Your task to perform on an android device: visit the assistant section in the google photos Image 0: 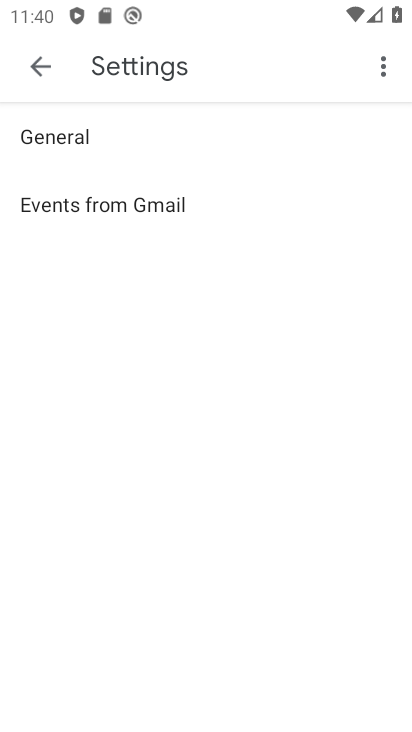
Step 0: press home button
Your task to perform on an android device: visit the assistant section in the google photos Image 1: 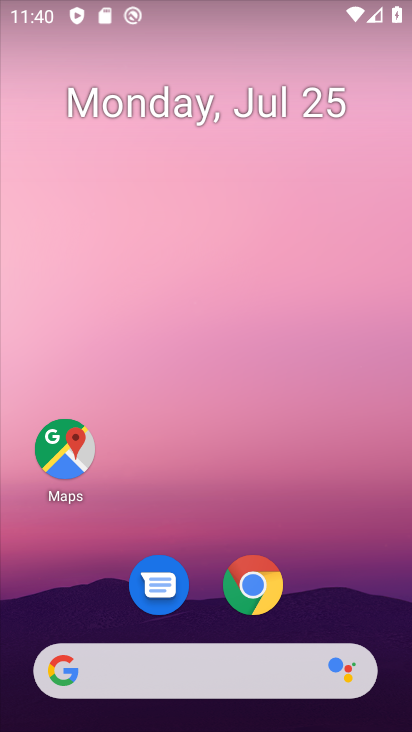
Step 1: drag from (329, 563) to (317, 32)
Your task to perform on an android device: visit the assistant section in the google photos Image 2: 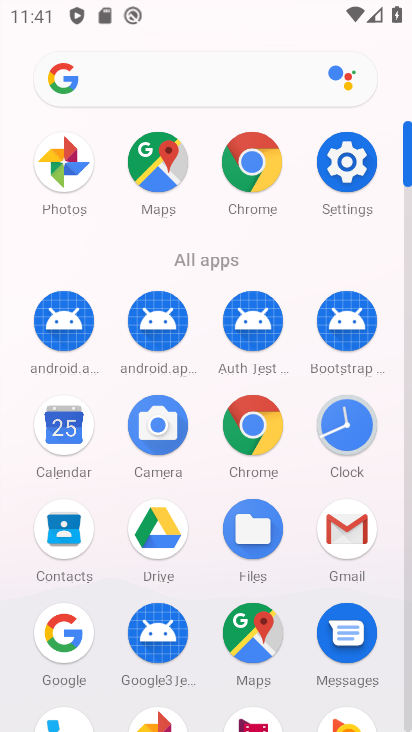
Step 2: click (65, 161)
Your task to perform on an android device: visit the assistant section in the google photos Image 3: 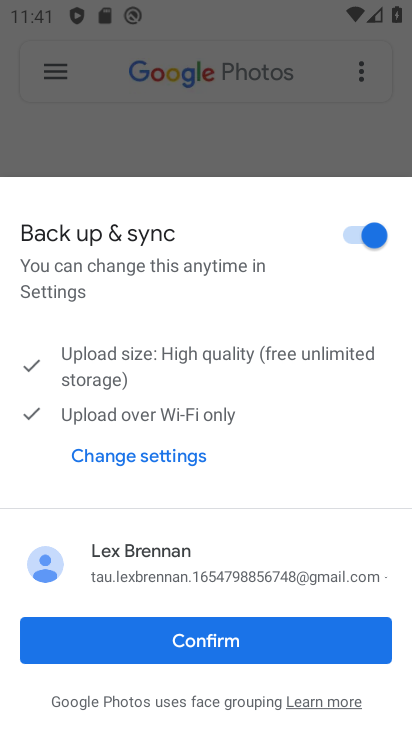
Step 3: click (265, 636)
Your task to perform on an android device: visit the assistant section in the google photos Image 4: 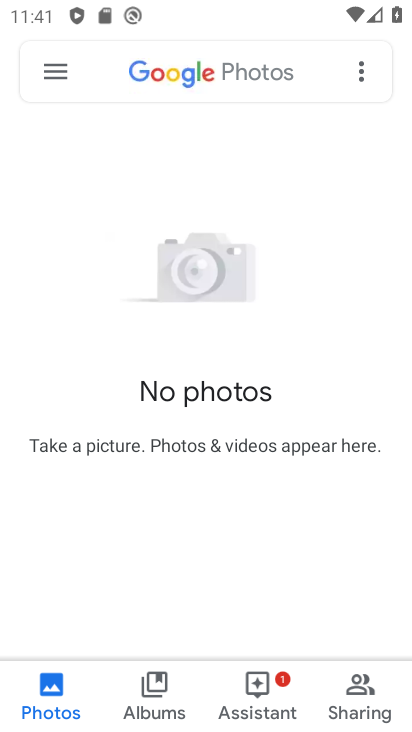
Step 4: click (263, 700)
Your task to perform on an android device: visit the assistant section in the google photos Image 5: 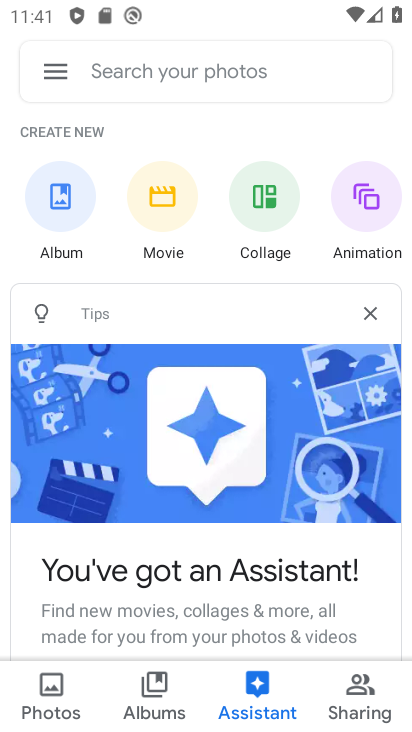
Step 5: task complete